Your task to perform on an android device: Go to settings Image 0: 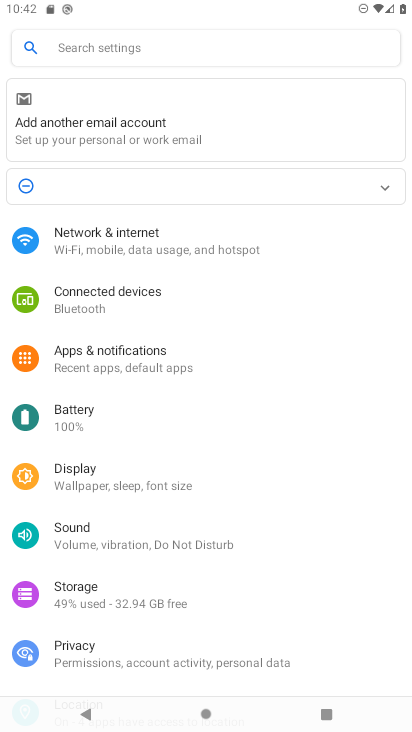
Step 0: press home button
Your task to perform on an android device: Go to settings Image 1: 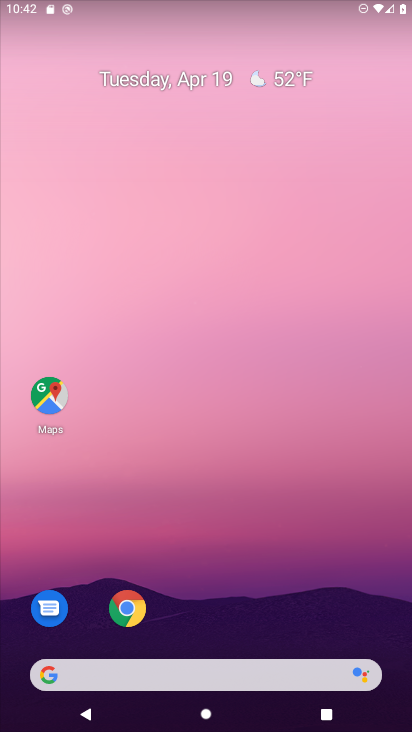
Step 1: drag from (309, 573) to (344, 126)
Your task to perform on an android device: Go to settings Image 2: 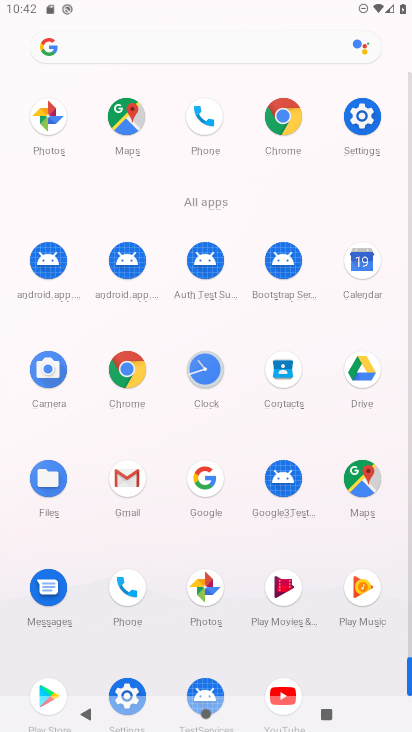
Step 2: click (349, 133)
Your task to perform on an android device: Go to settings Image 3: 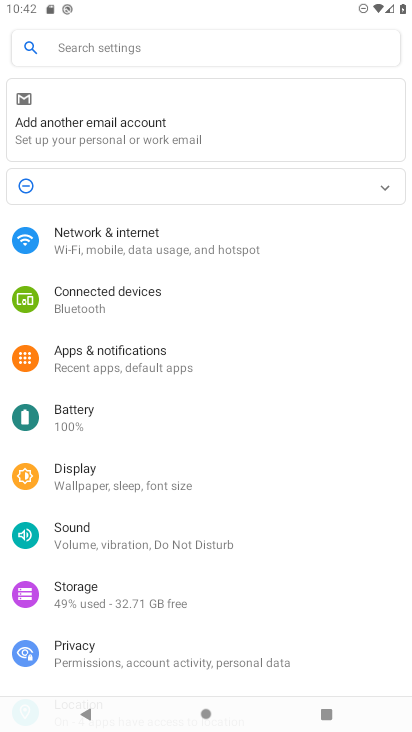
Step 3: task complete